Your task to perform on an android device: find photos in the google photos app Image 0: 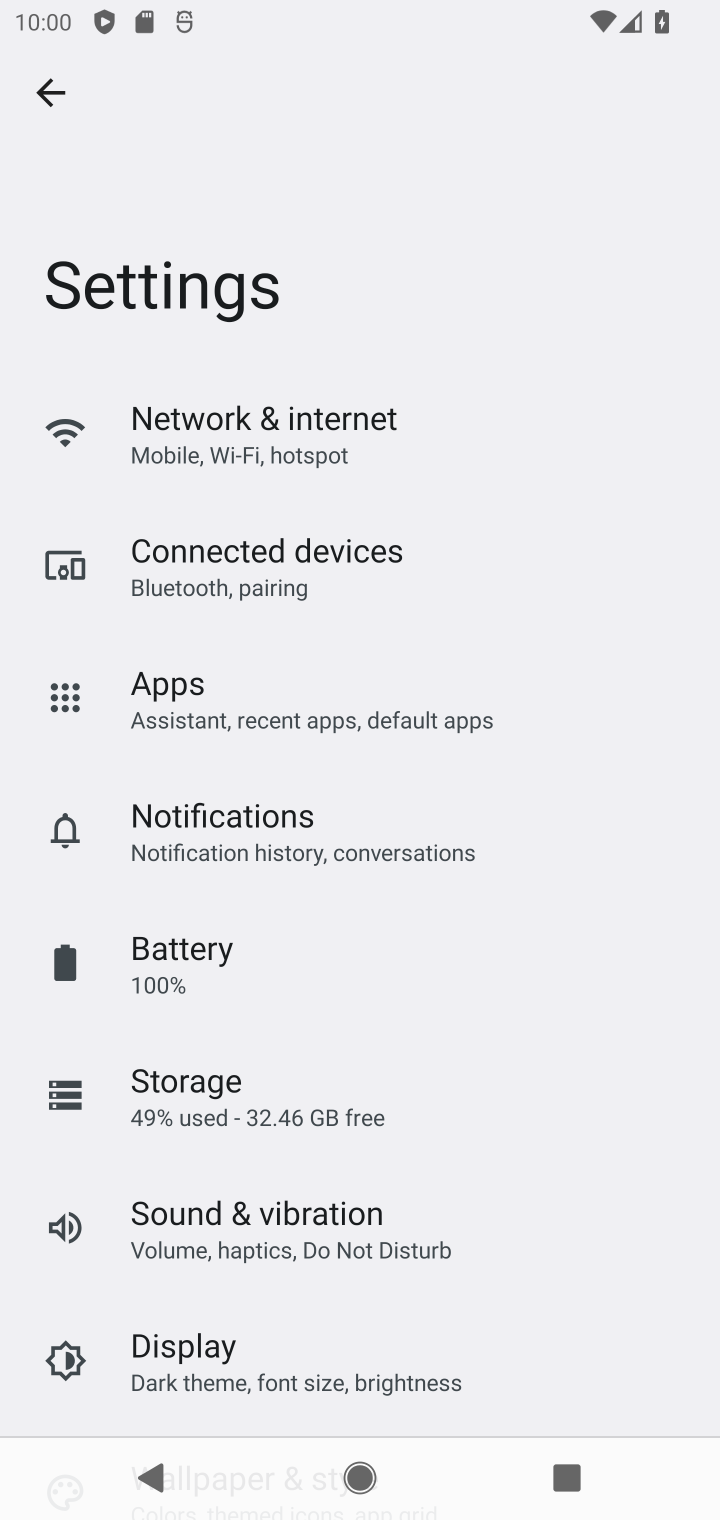
Step 0: press home button
Your task to perform on an android device: find photos in the google photos app Image 1: 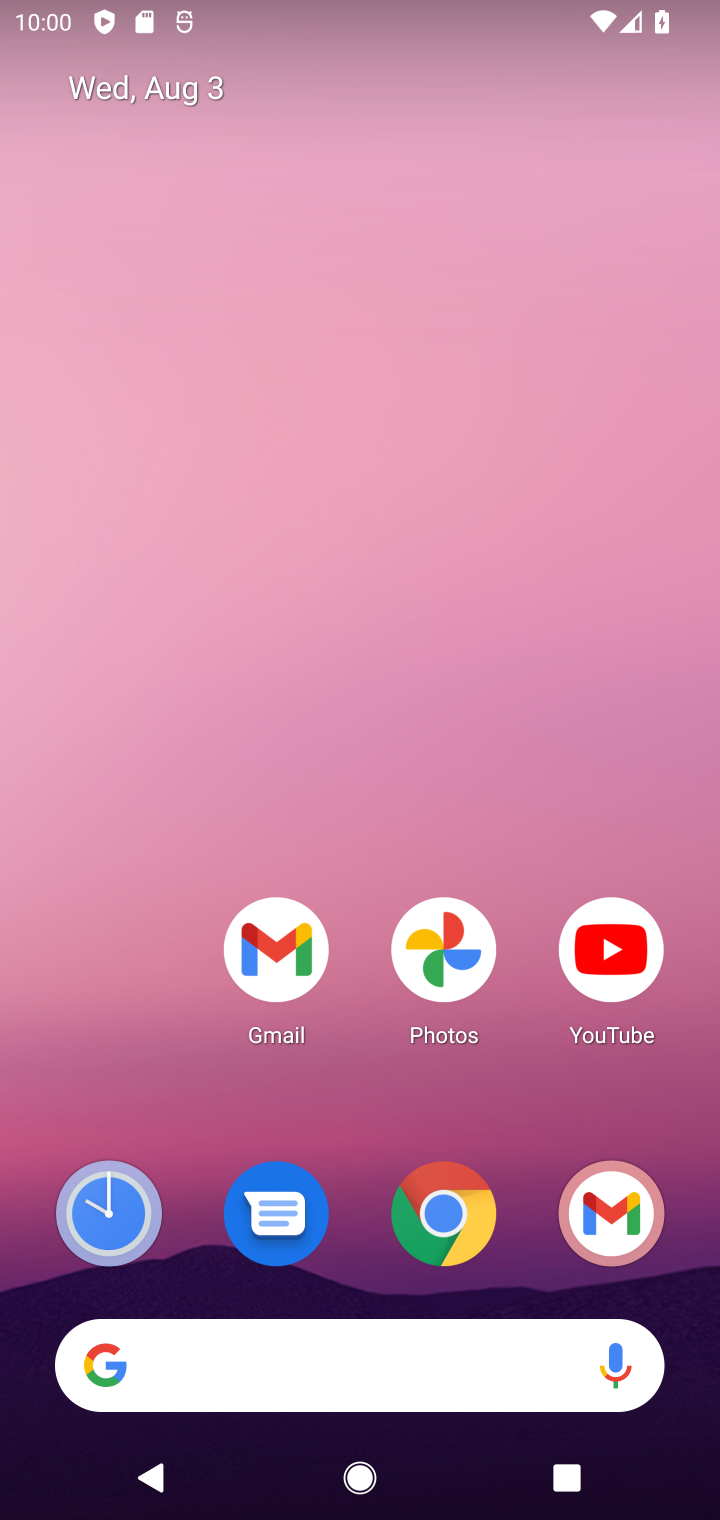
Step 1: click (465, 952)
Your task to perform on an android device: find photos in the google photos app Image 2: 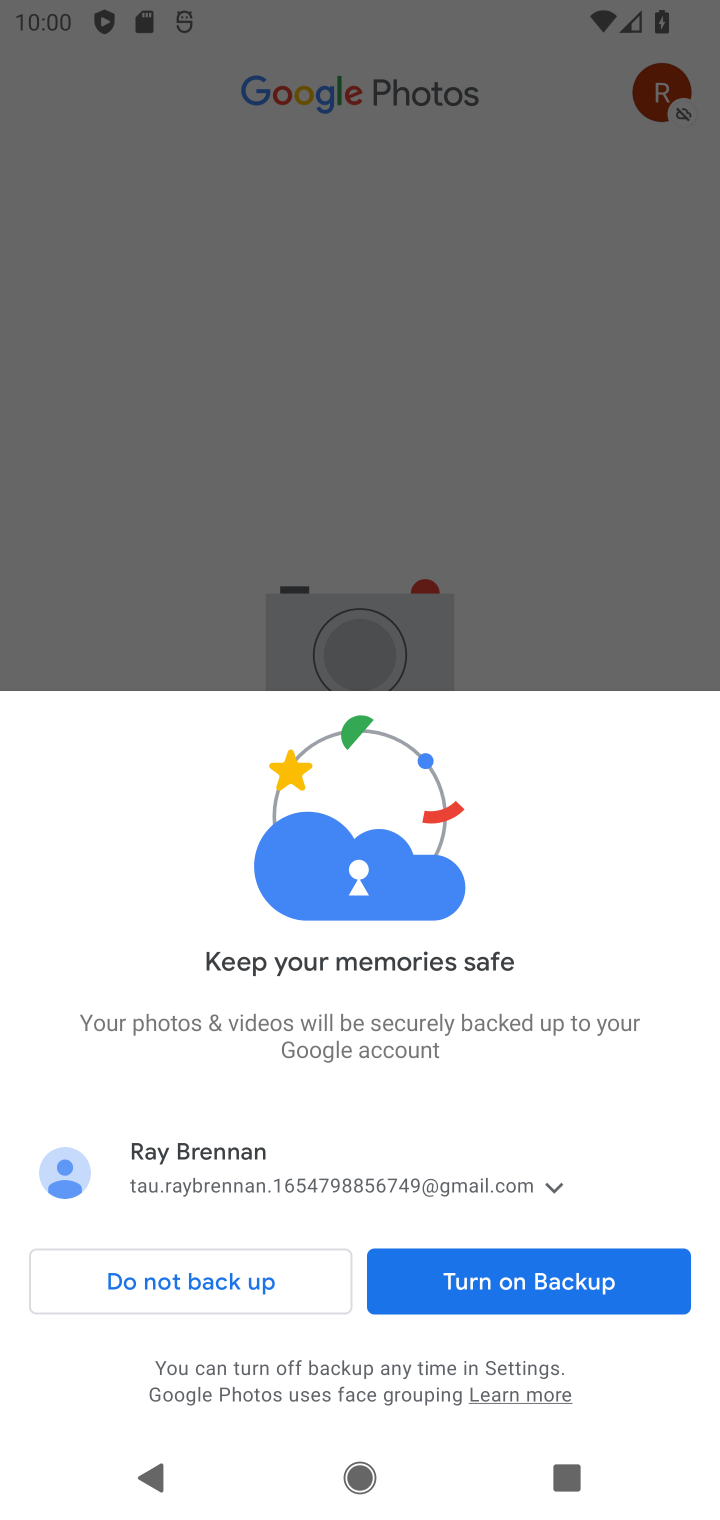
Step 2: click (543, 1275)
Your task to perform on an android device: find photos in the google photos app Image 3: 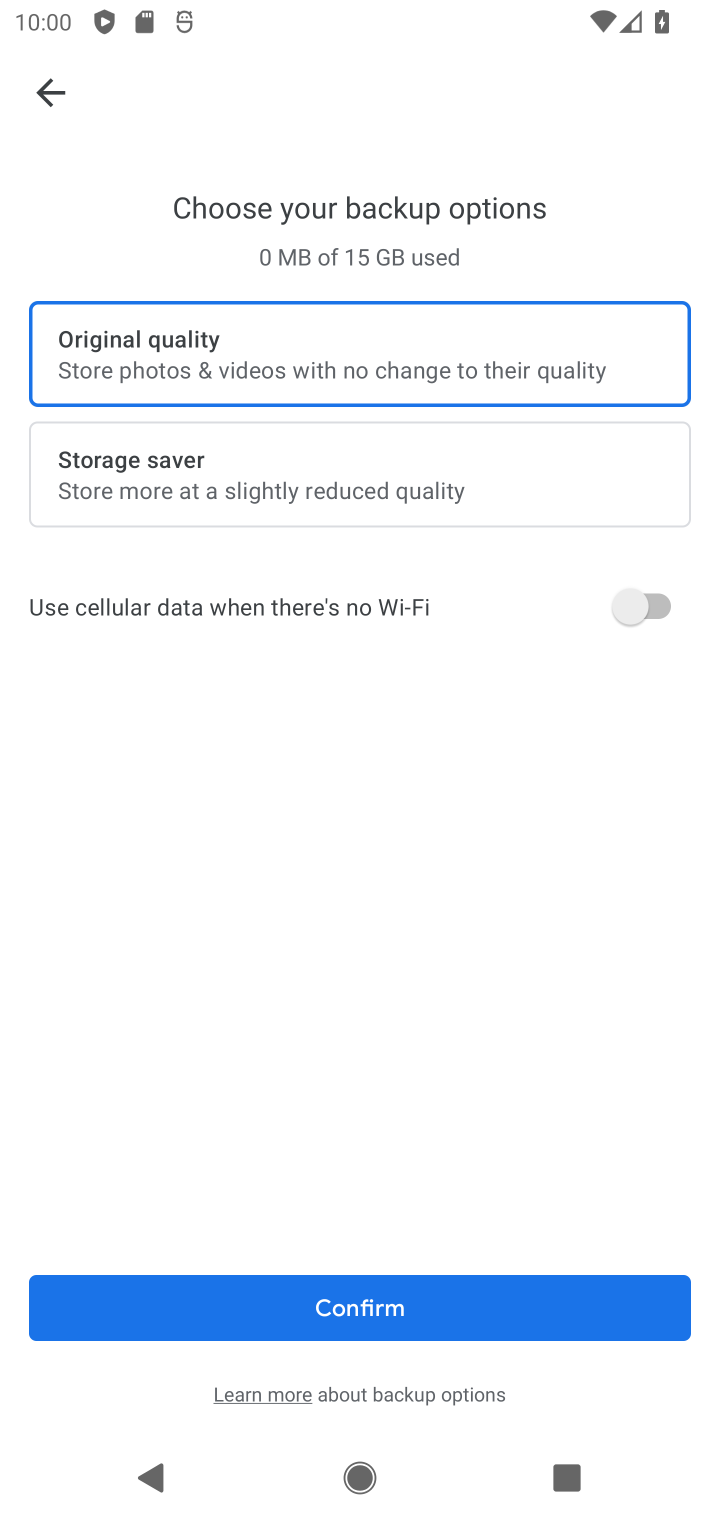
Step 3: click (427, 1319)
Your task to perform on an android device: find photos in the google photos app Image 4: 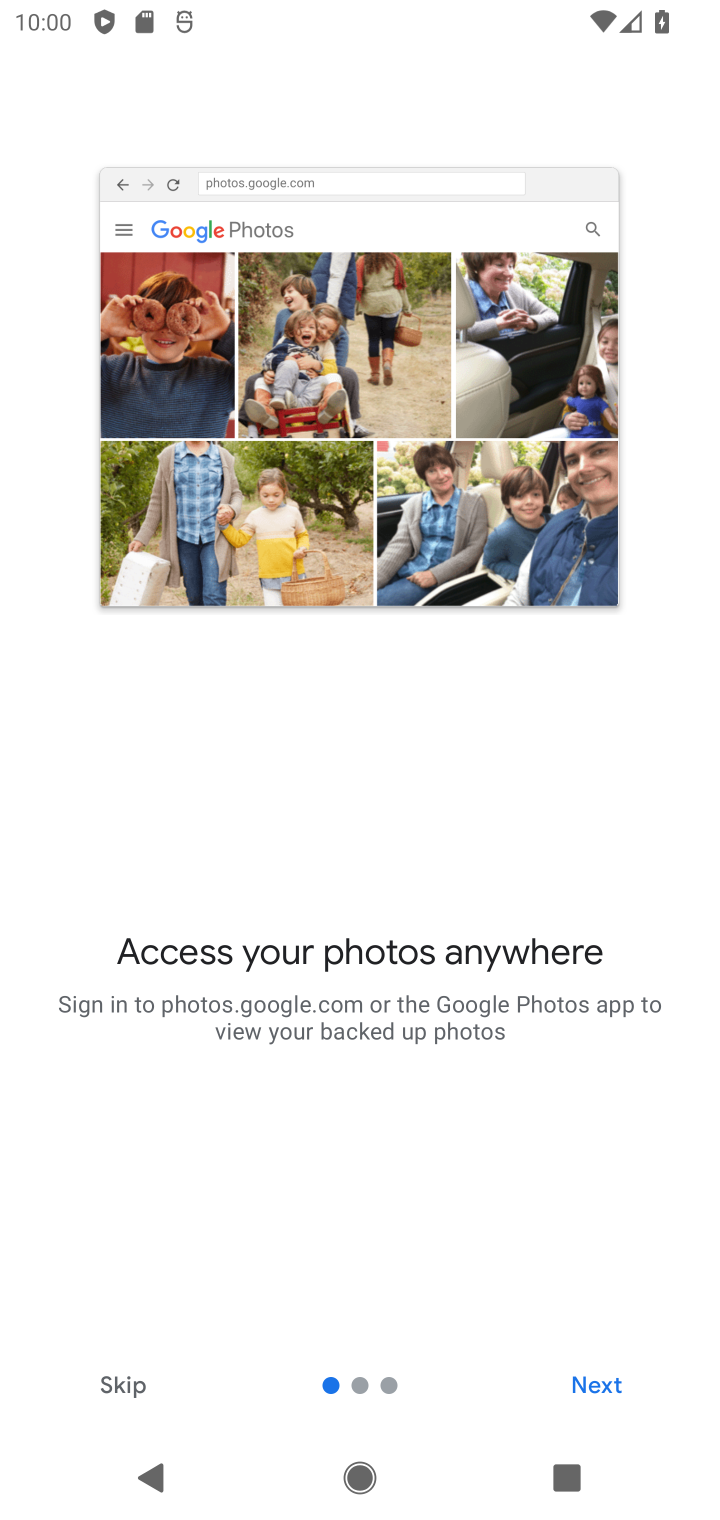
Step 4: click (137, 1385)
Your task to perform on an android device: find photos in the google photos app Image 5: 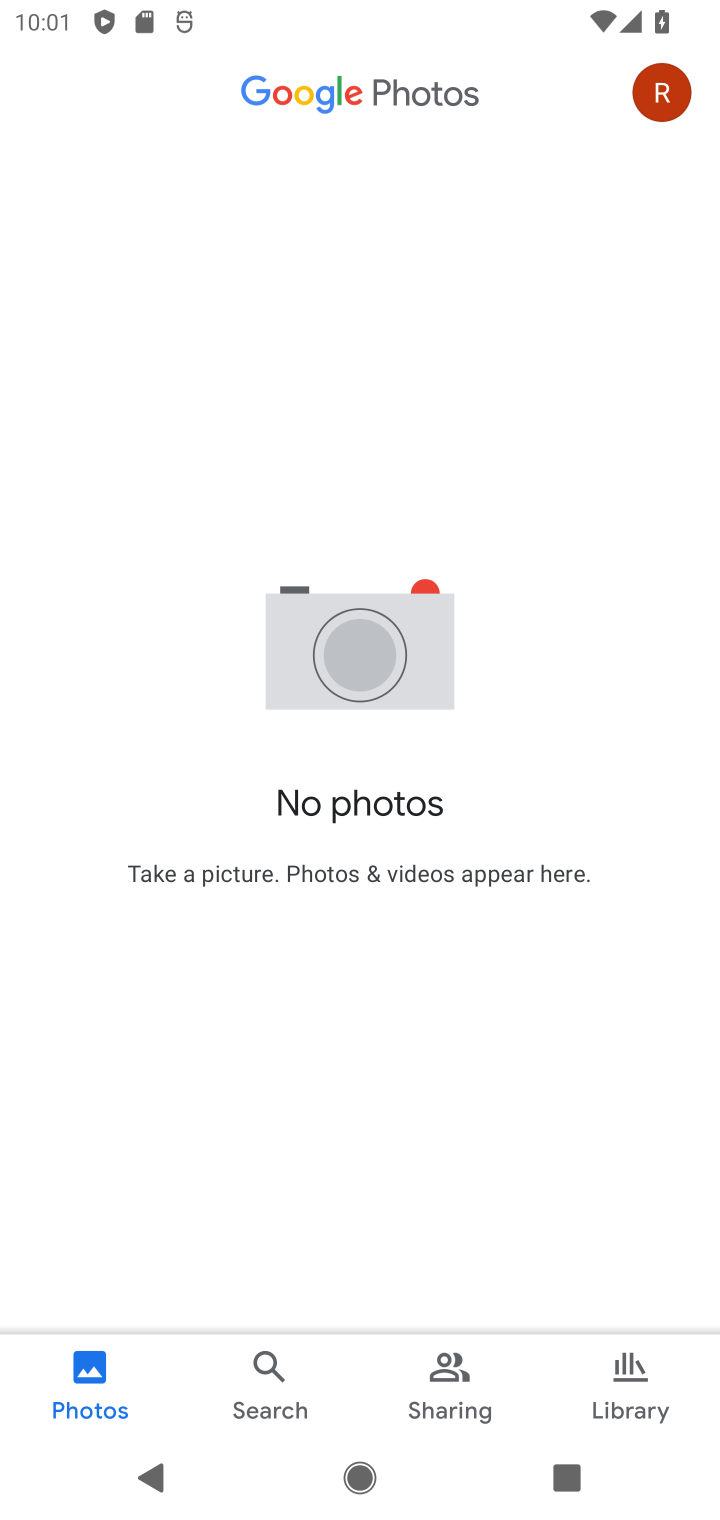
Step 5: task complete